Your task to perform on an android device: Open notification settings Image 0: 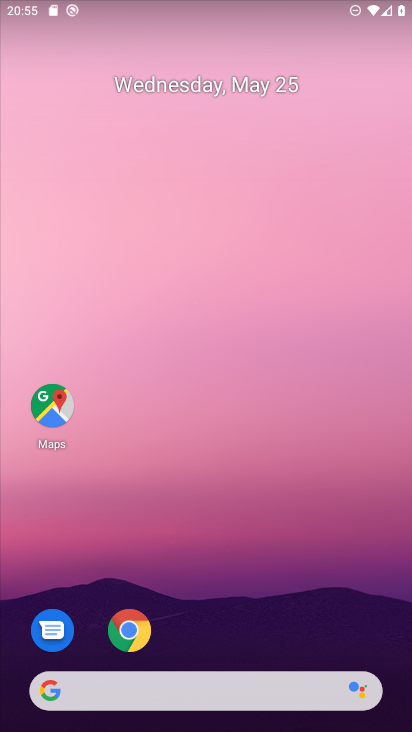
Step 0: drag from (231, 595) to (263, 115)
Your task to perform on an android device: Open notification settings Image 1: 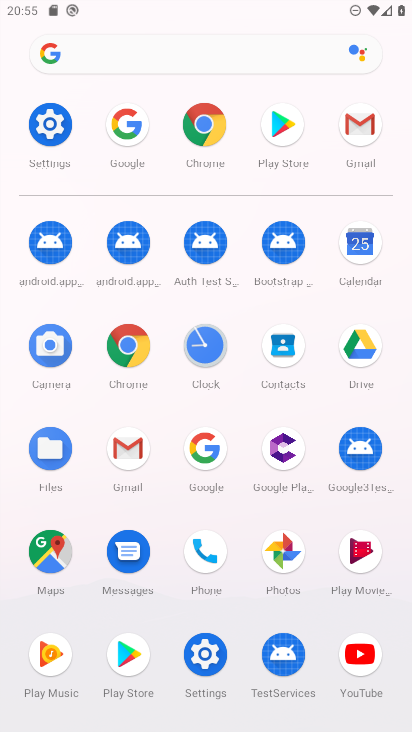
Step 1: click (52, 117)
Your task to perform on an android device: Open notification settings Image 2: 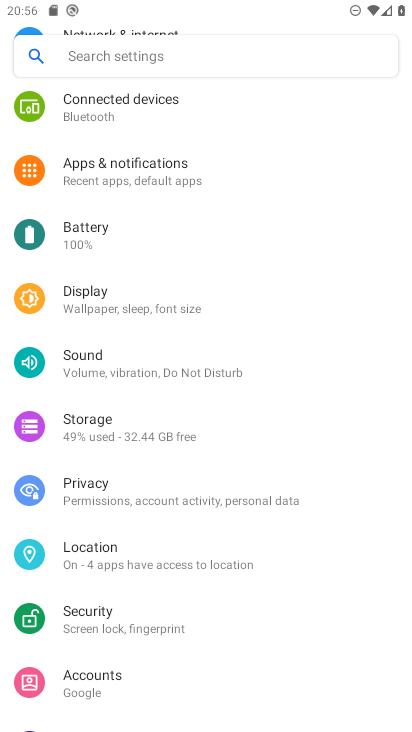
Step 2: click (139, 168)
Your task to perform on an android device: Open notification settings Image 3: 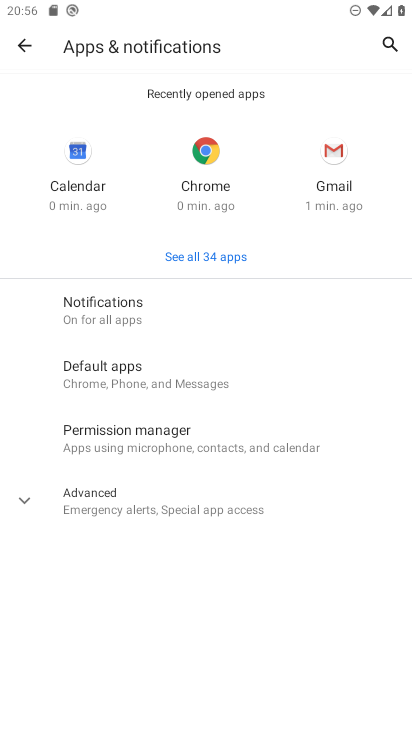
Step 3: click (106, 314)
Your task to perform on an android device: Open notification settings Image 4: 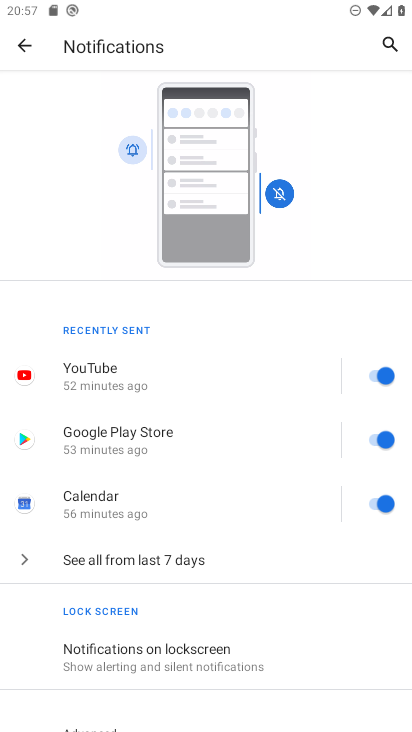
Step 4: task complete